Your task to perform on an android device: change the clock display to digital Image 0: 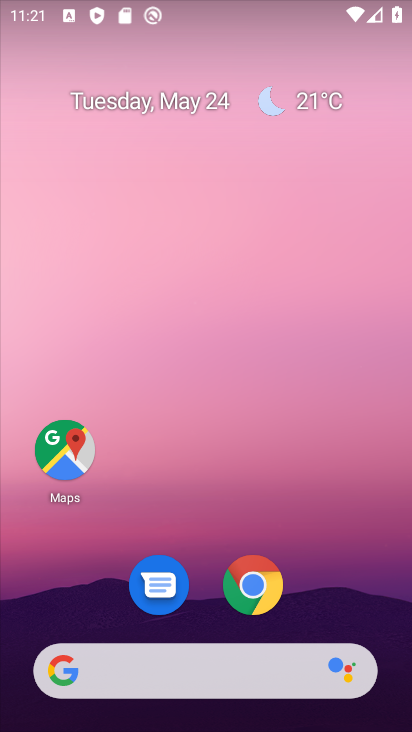
Step 0: drag from (234, 527) to (222, 30)
Your task to perform on an android device: change the clock display to digital Image 1: 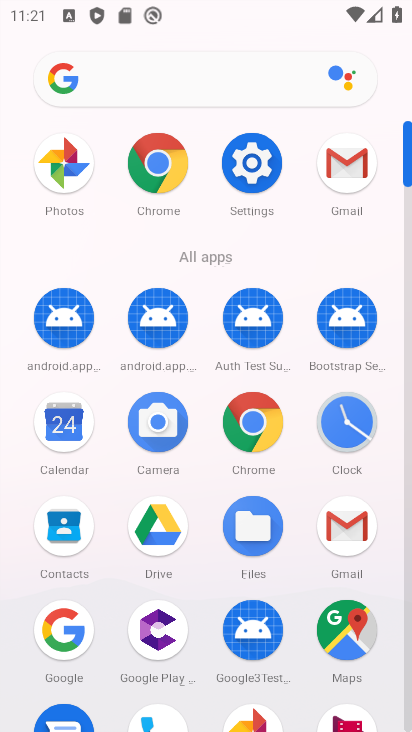
Step 1: click (335, 411)
Your task to perform on an android device: change the clock display to digital Image 2: 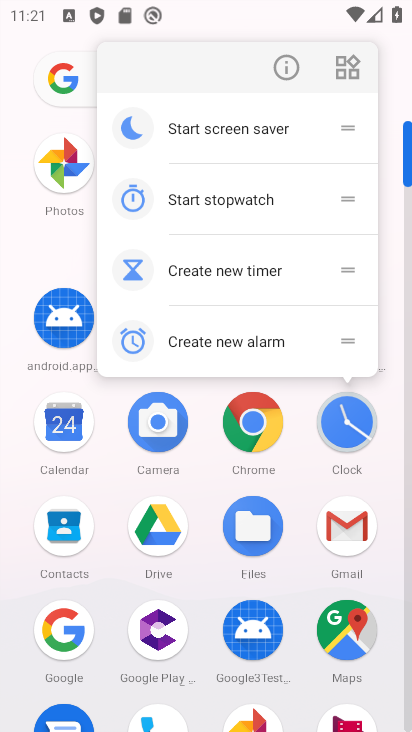
Step 2: click (335, 411)
Your task to perform on an android device: change the clock display to digital Image 3: 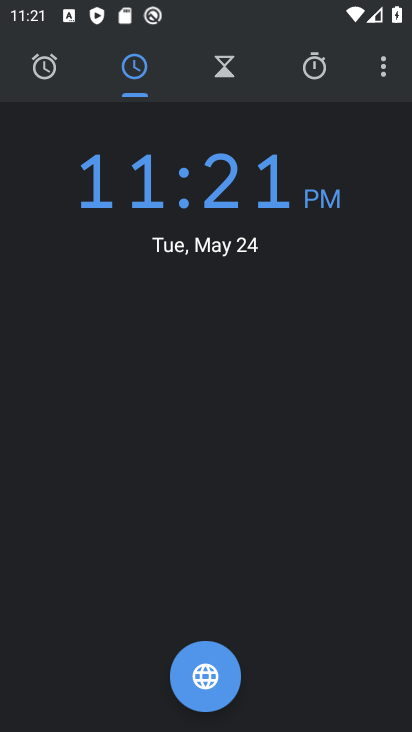
Step 3: task complete